Your task to perform on an android device: uninstall "Expedia: Hotels, Flights & Car" Image 0: 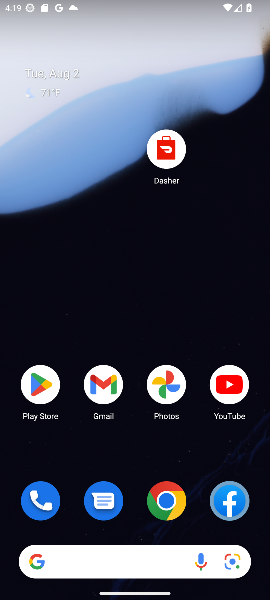
Step 0: click (49, 404)
Your task to perform on an android device: uninstall "Expedia: Hotels, Flights & Car" Image 1: 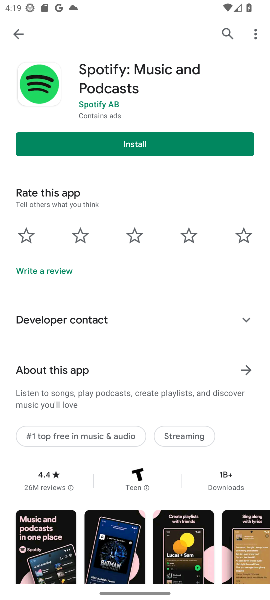
Step 1: click (227, 35)
Your task to perform on an android device: uninstall "Expedia: Hotels, Flights & Car" Image 2: 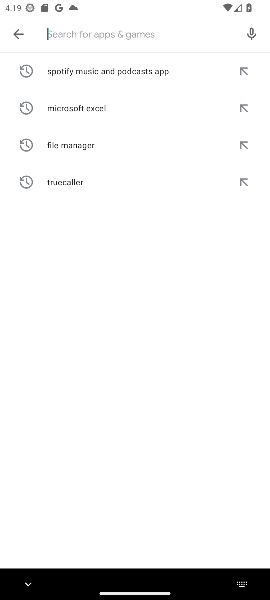
Step 2: type "Expedia: Hotels, Flights & Car"
Your task to perform on an android device: uninstall "Expedia: Hotels, Flights & Car" Image 3: 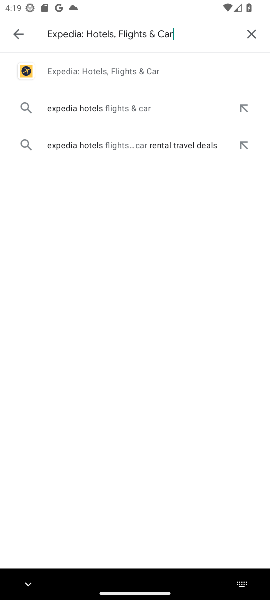
Step 3: click (82, 78)
Your task to perform on an android device: uninstall "Expedia: Hotels, Flights & Car" Image 4: 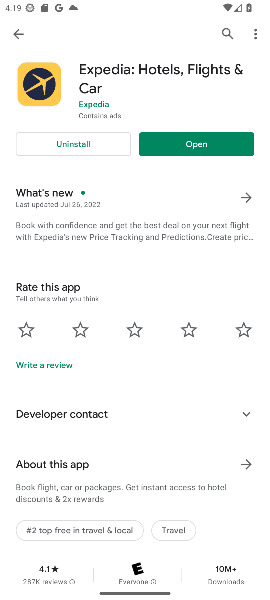
Step 4: click (59, 143)
Your task to perform on an android device: uninstall "Expedia: Hotels, Flights & Car" Image 5: 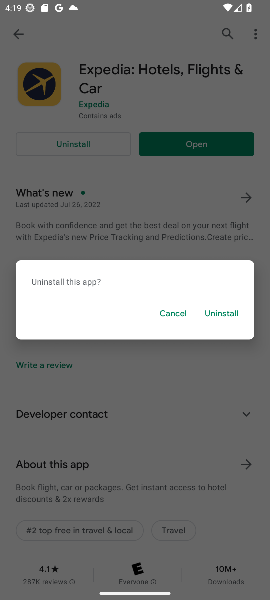
Step 5: click (226, 314)
Your task to perform on an android device: uninstall "Expedia: Hotels, Flights & Car" Image 6: 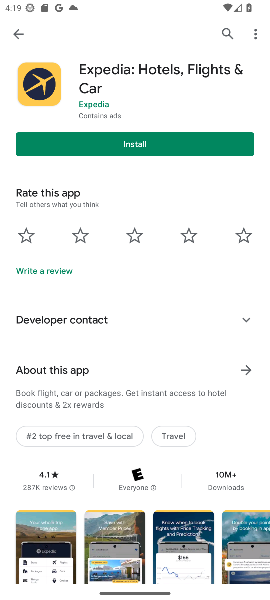
Step 6: task complete